Your task to perform on an android device: toggle notifications settings in the gmail app Image 0: 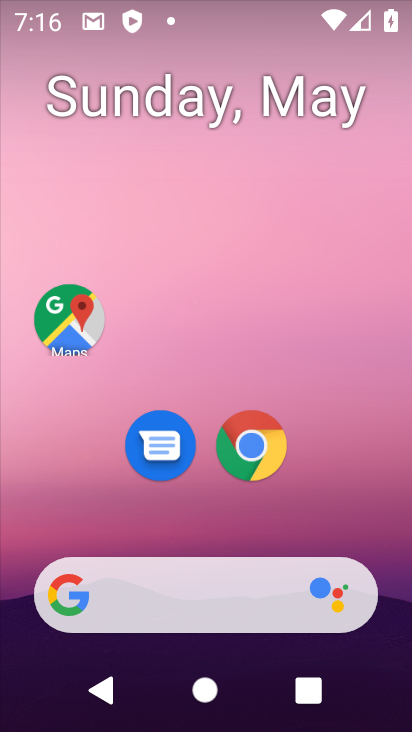
Step 0: drag from (329, 477) to (283, 8)
Your task to perform on an android device: toggle notifications settings in the gmail app Image 1: 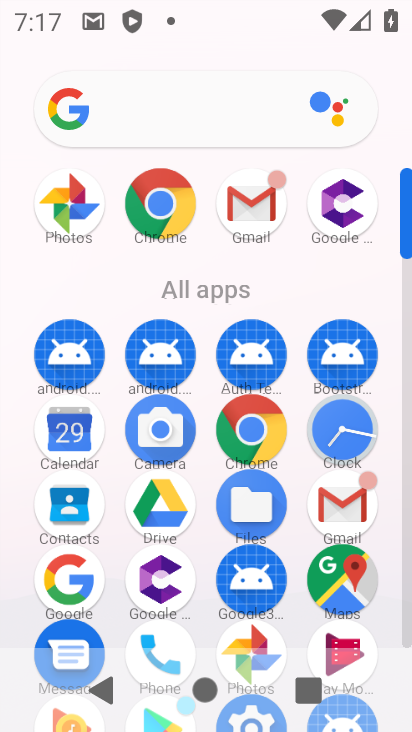
Step 1: click (249, 204)
Your task to perform on an android device: toggle notifications settings in the gmail app Image 2: 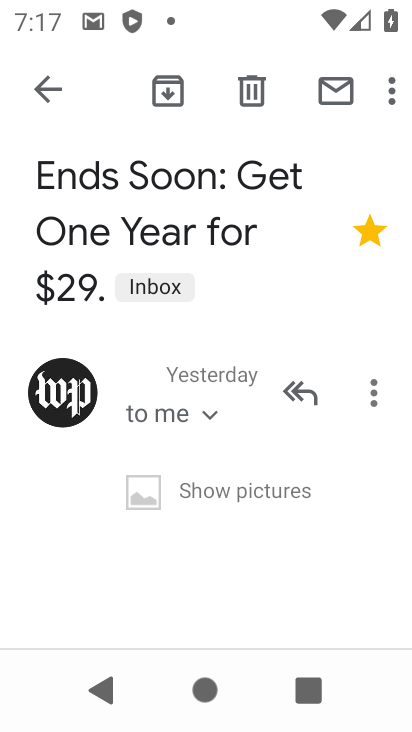
Step 2: click (45, 84)
Your task to perform on an android device: toggle notifications settings in the gmail app Image 3: 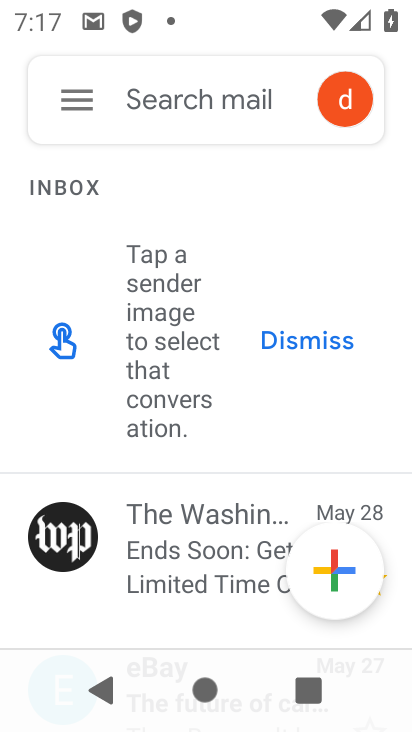
Step 3: click (72, 97)
Your task to perform on an android device: toggle notifications settings in the gmail app Image 4: 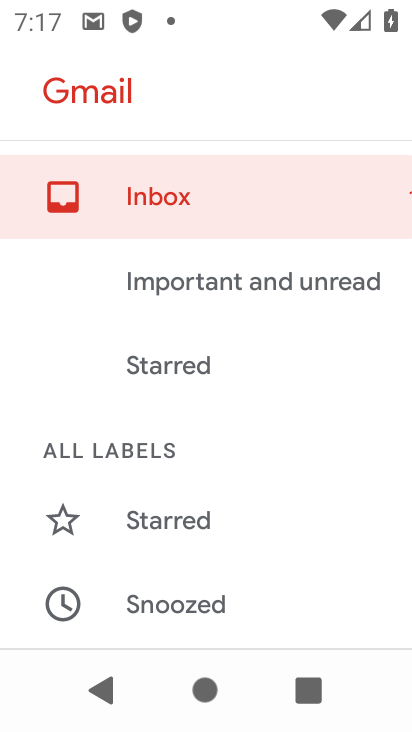
Step 4: drag from (232, 573) to (286, 79)
Your task to perform on an android device: toggle notifications settings in the gmail app Image 5: 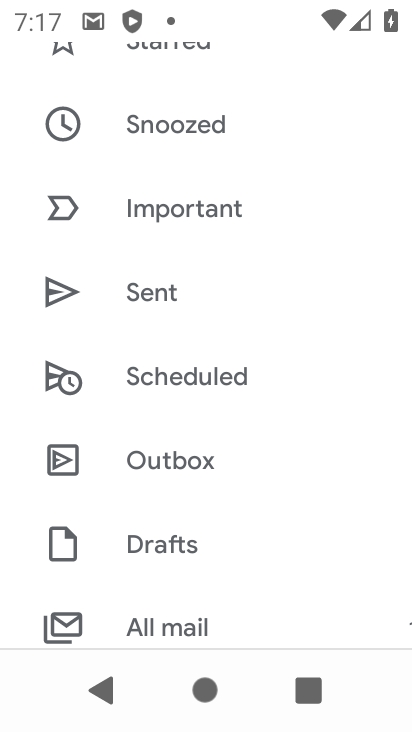
Step 5: drag from (272, 475) to (263, 187)
Your task to perform on an android device: toggle notifications settings in the gmail app Image 6: 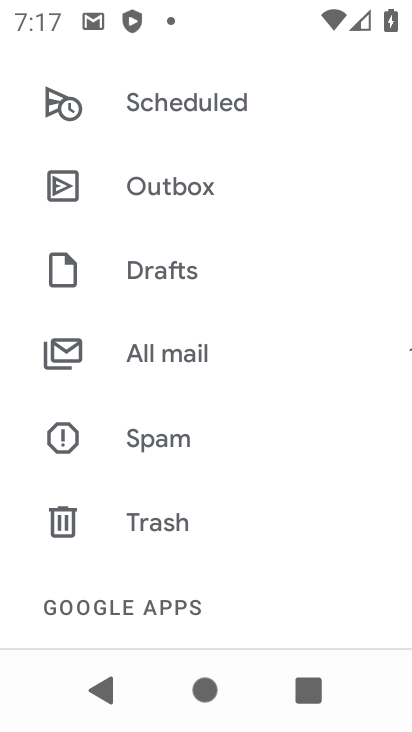
Step 6: drag from (292, 493) to (234, 153)
Your task to perform on an android device: toggle notifications settings in the gmail app Image 7: 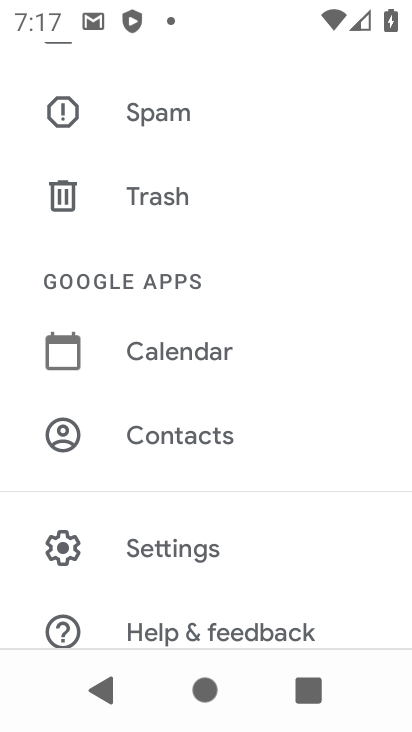
Step 7: click (171, 542)
Your task to perform on an android device: toggle notifications settings in the gmail app Image 8: 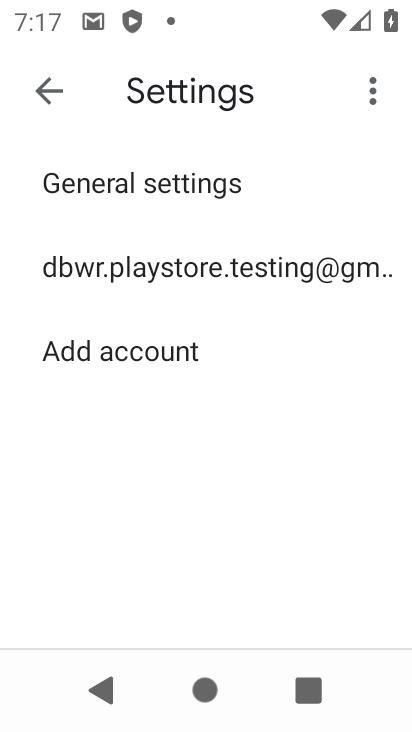
Step 8: click (85, 177)
Your task to perform on an android device: toggle notifications settings in the gmail app Image 9: 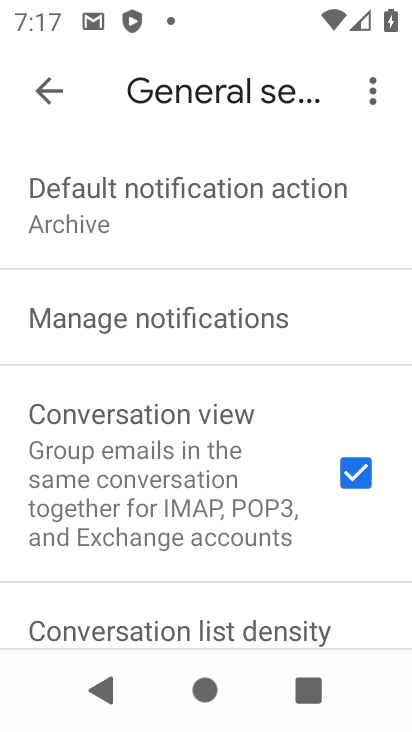
Step 9: click (143, 312)
Your task to perform on an android device: toggle notifications settings in the gmail app Image 10: 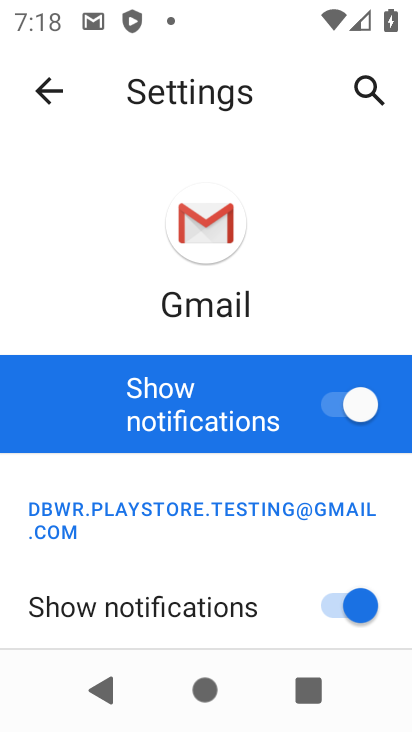
Step 10: click (365, 404)
Your task to perform on an android device: toggle notifications settings in the gmail app Image 11: 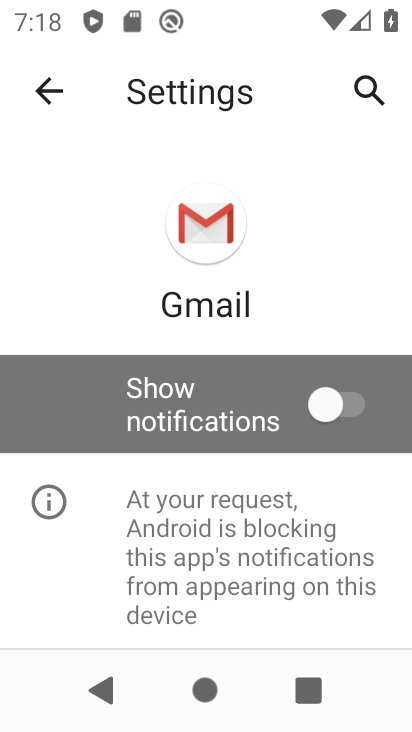
Step 11: task complete